Your task to perform on an android device: turn off sleep mode Image 0: 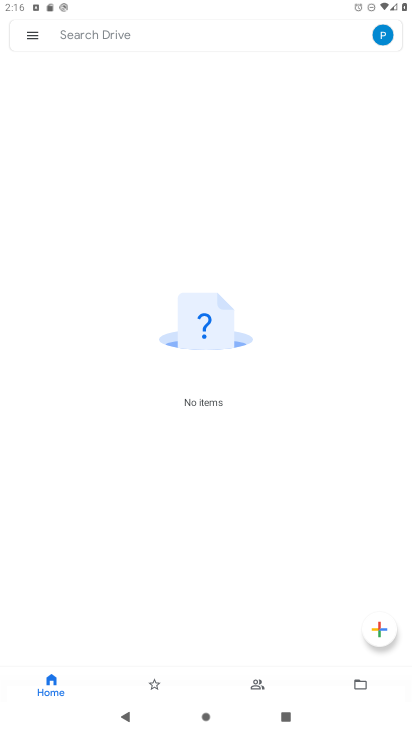
Step 0: press home button
Your task to perform on an android device: turn off sleep mode Image 1: 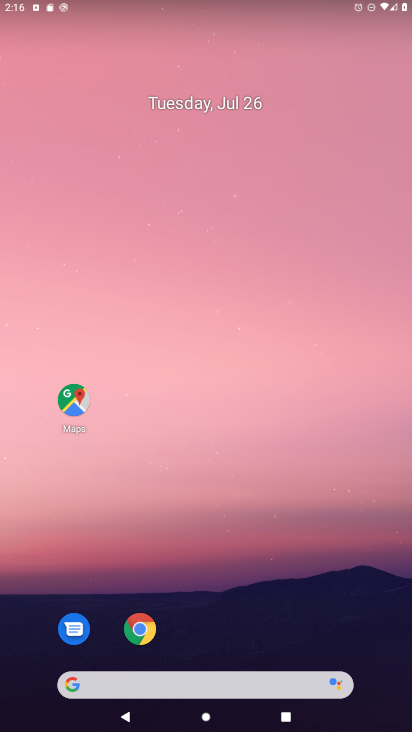
Step 1: drag from (397, 677) to (340, 213)
Your task to perform on an android device: turn off sleep mode Image 2: 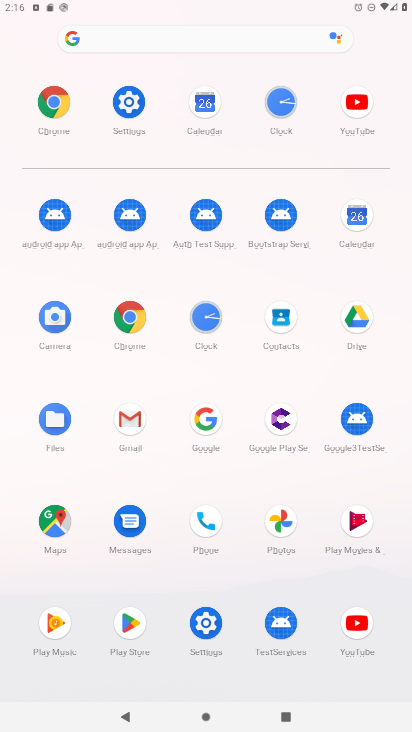
Step 2: click (207, 622)
Your task to perform on an android device: turn off sleep mode Image 3: 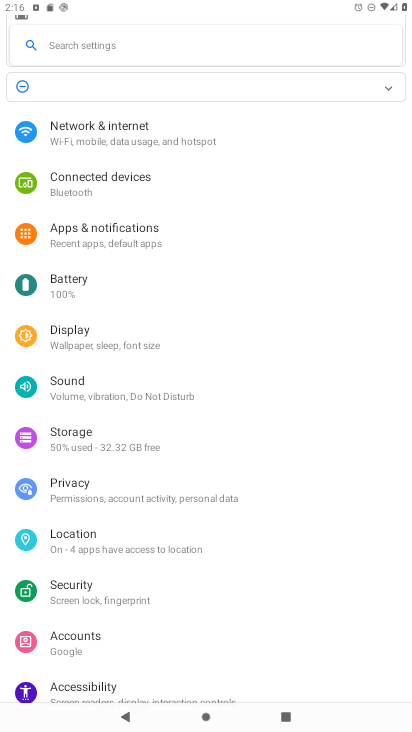
Step 3: click (61, 331)
Your task to perform on an android device: turn off sleep mode Image 4: 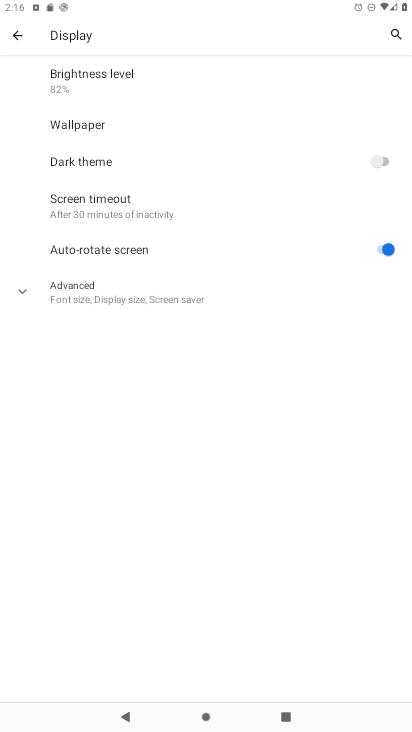
Step 4: click (22, 286)
Your task to perform on an android device: turn off sleep mode Image 5: 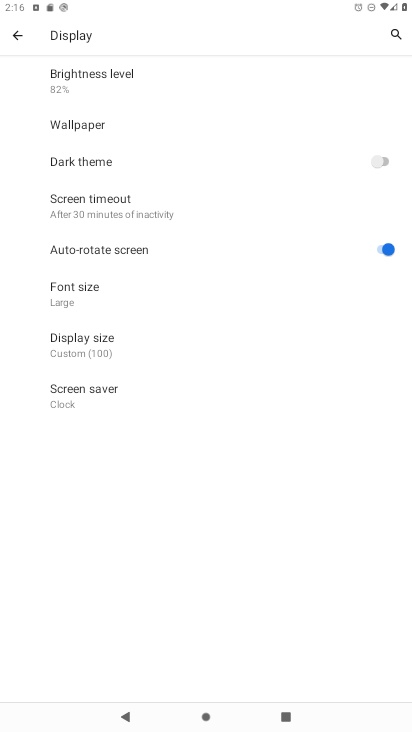
Step 5: task complete